Your task to perform on an android device: delete browsing data in the chrome app Image 0: 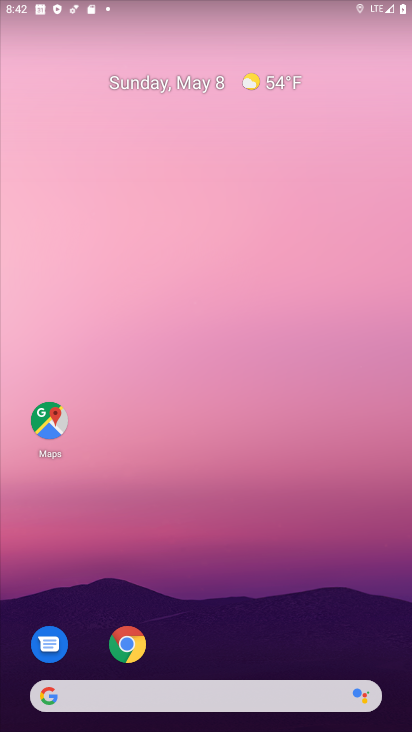
Step 0: drag from (204, 657) to (228, 151)
Your task to perform on an android device: delete browsing data in the chrome app Image 1: 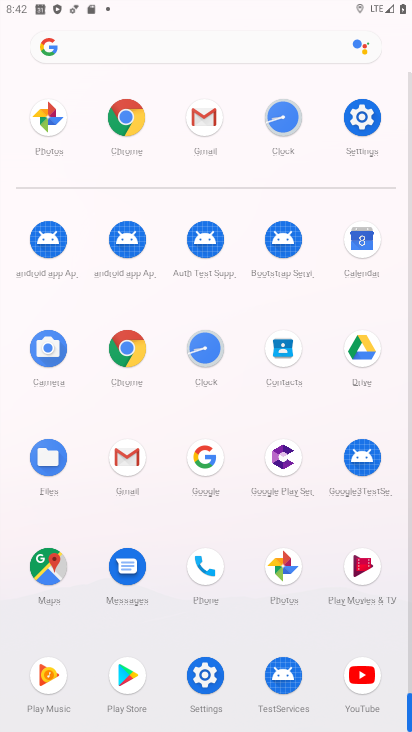
Step 1: click (117, 111)
Your task to perform on an android device: delete browsing data in the chrome app Image 2: 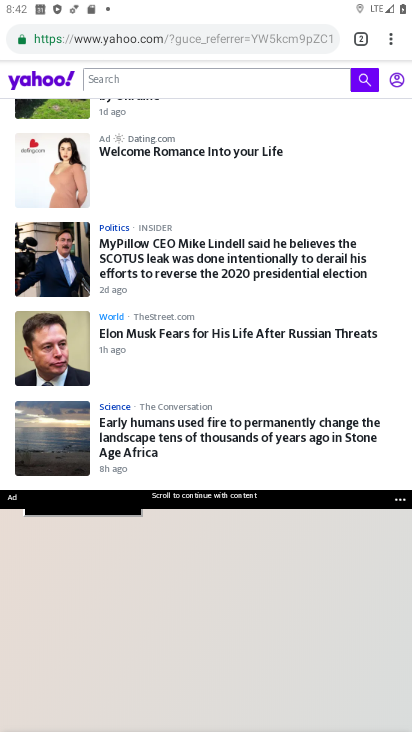
Step 2: drag from (280, 101) to (320, 520)
Your task to perform on an android device: delete browsing data in the chrome app Image 3: 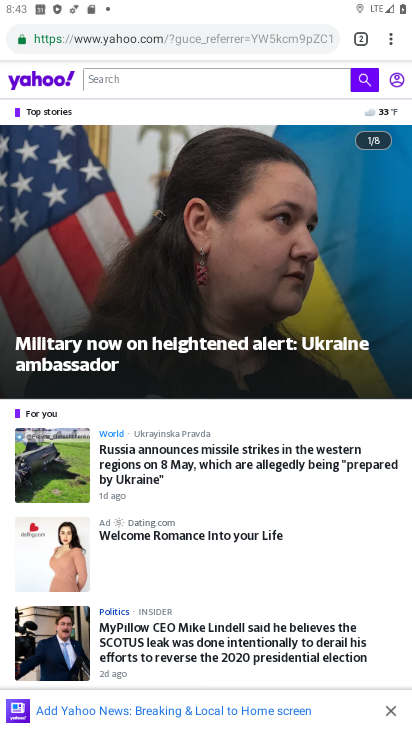
Step 3: drag from (384, 36) to (296, 478)
Your task to perform on an android device: delete browsing data in the chrome app Image 4: 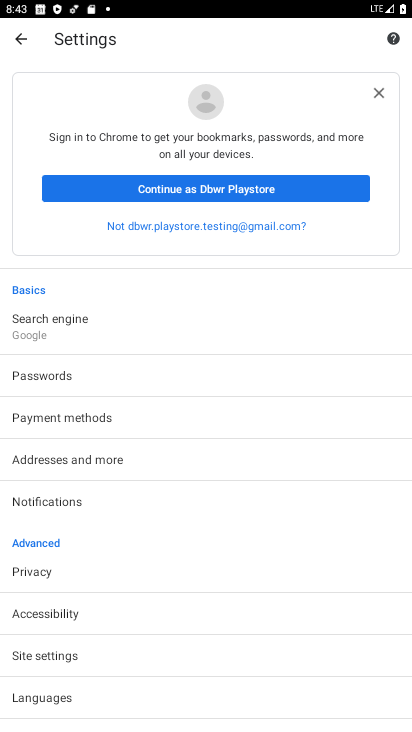
Step 4: drag from (166, 681) to (187, 277)
Your task to perform on an android device: delete browsing data in the chrome app Image 5: 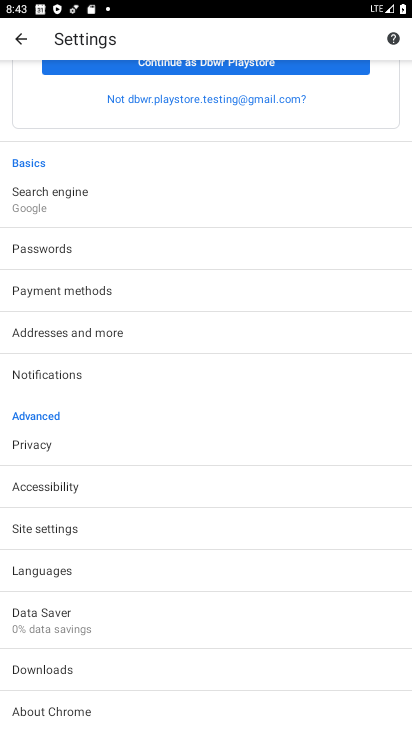
Step 5: click (10, 31)
Your task to perform on an android device: delete browsing data in the chrome app Image 6: 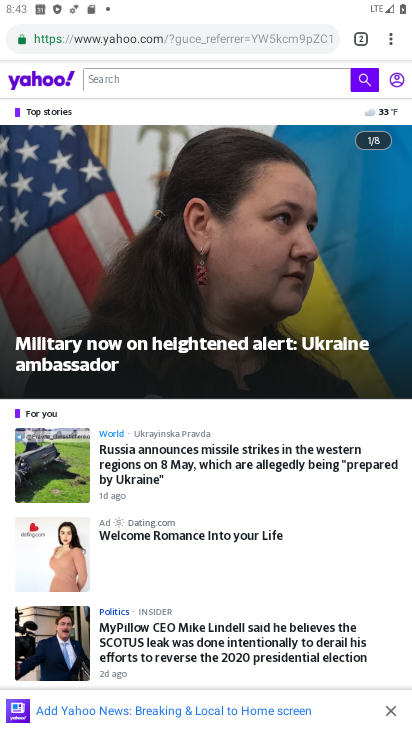
Step 6: drag from (394, 35) to (273, 270)
Your task to perform on an android device: delete browsing data in the chrome app Image 7: 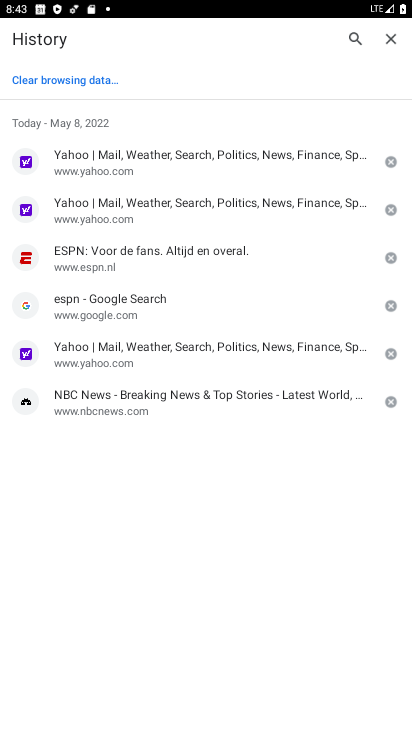
Step 7: click (54, 80)
Your task to perform on an android device: delete browsing data in the chrome app Image 8: 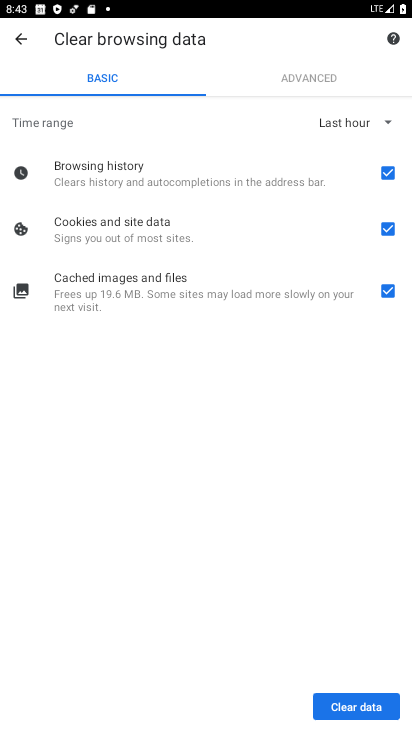
Step 8: click (348, 699)
Your task to perform on an android device: delete browsing data in the chrome app Image 9: 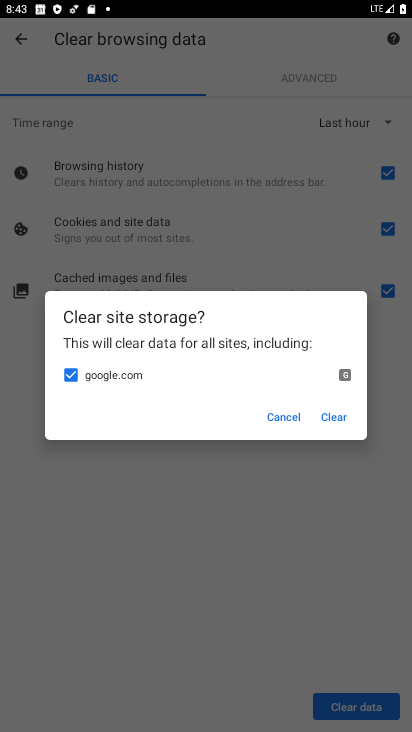
Step 9: click (338, 412)
Your task to perform on an android device: delete browsing data in the chrome app Image 10: 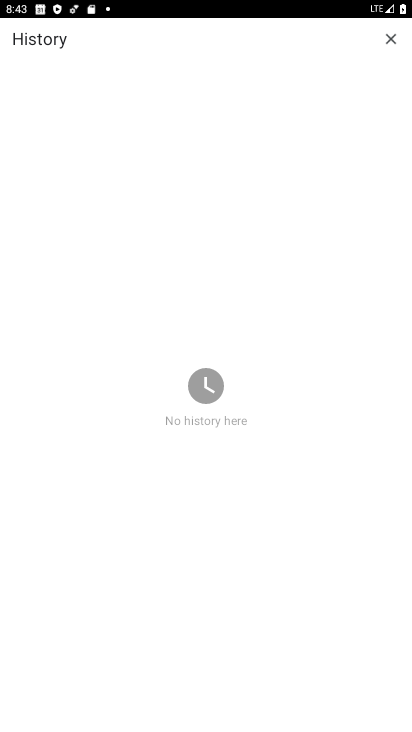
Step 10: task complete